Your task to perform on an android device: Go to Reddit.com Image 0: 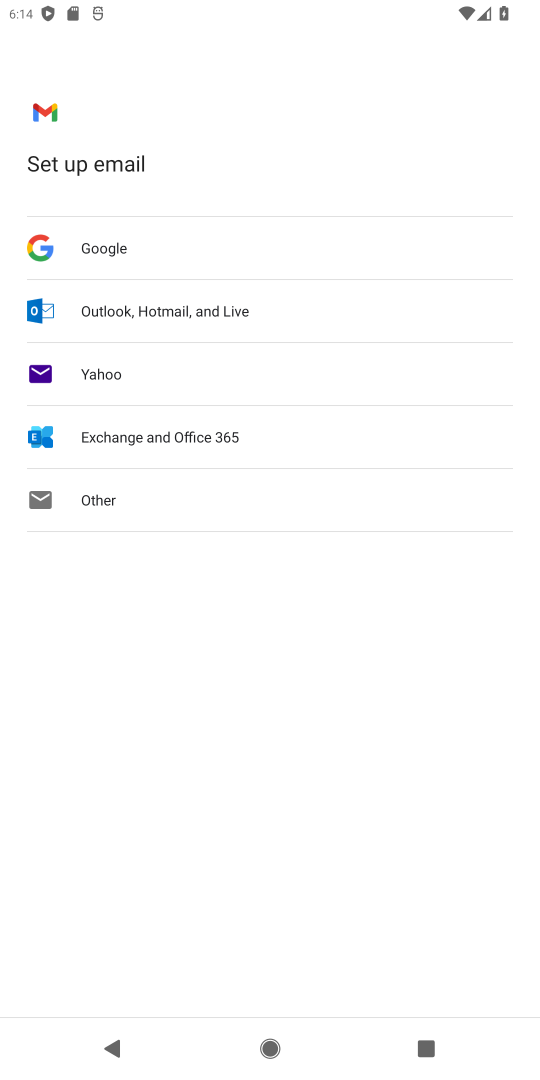
Step 0: press home button
Your task to perform on an android device: Go to Reddit.com Image 1: 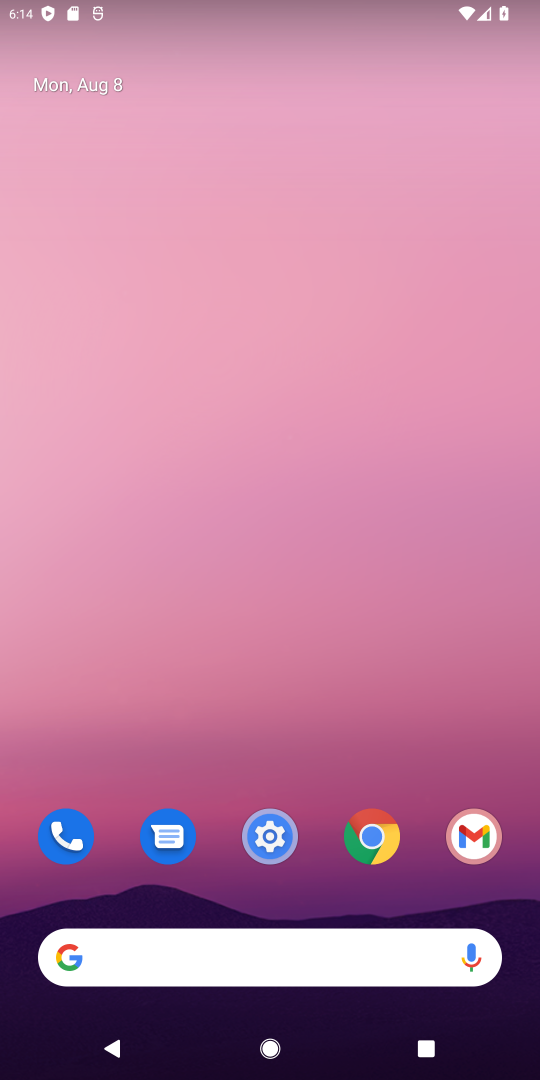
Step 1: drag from (320, 757) to (287, 35)
Your task to perform on an android device: Go to Reddit.com Image 2: 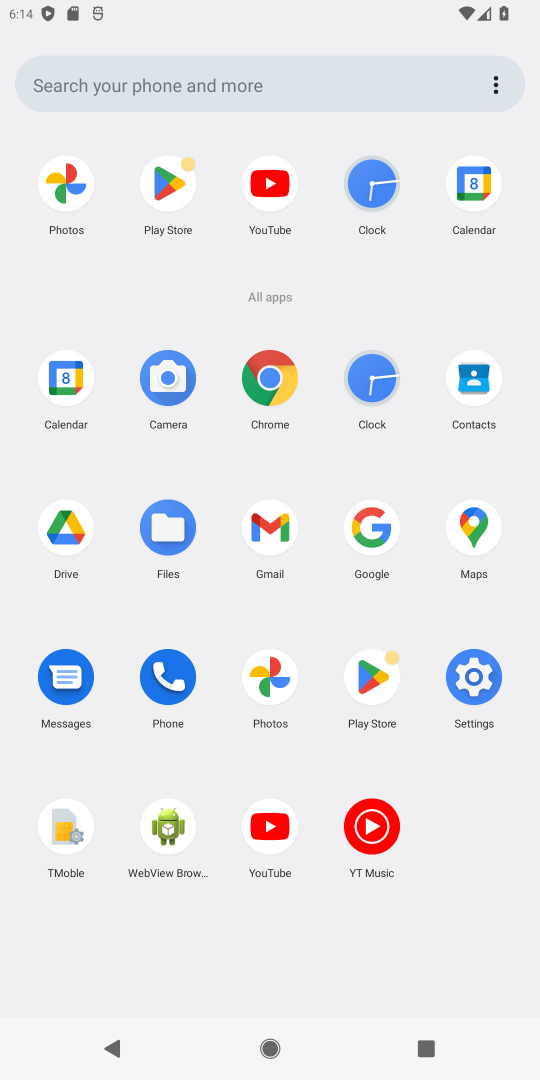
Step 2: click (285, 380)
Your task to perform on an android device: Go to Reddit.com Image 3: 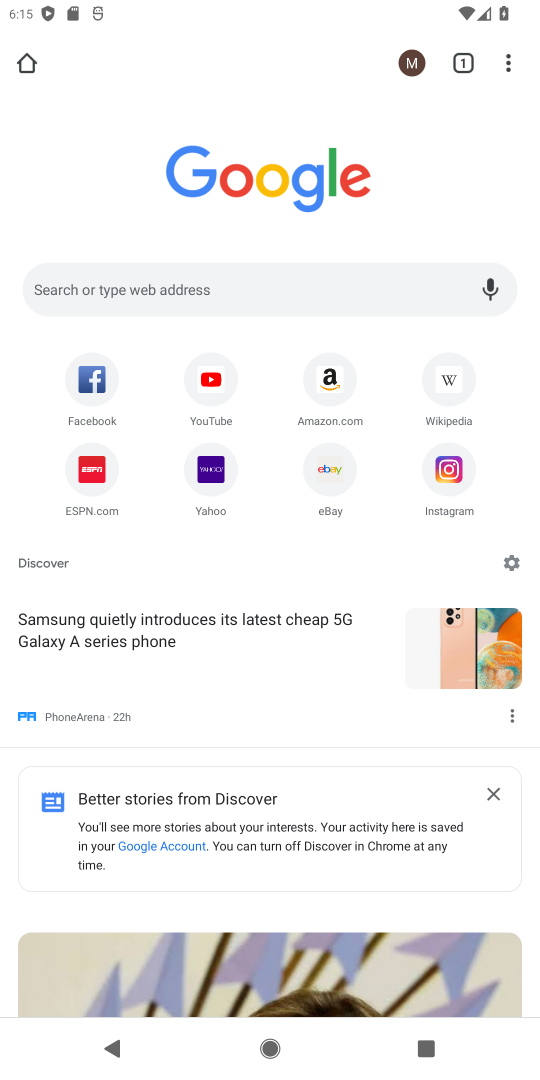
Step 3: click (173, 277)
Your task to perform on an android device: Go to Reddit.com Image 4: 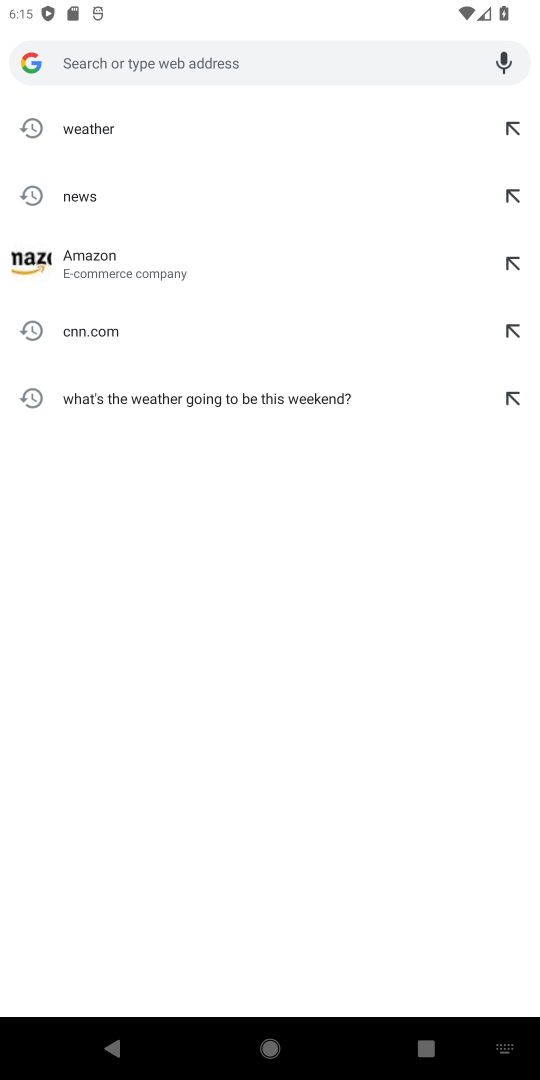
Step 4: click (189, 50)
Your task to perform on an android device: Go to Reddit.com Image 5: 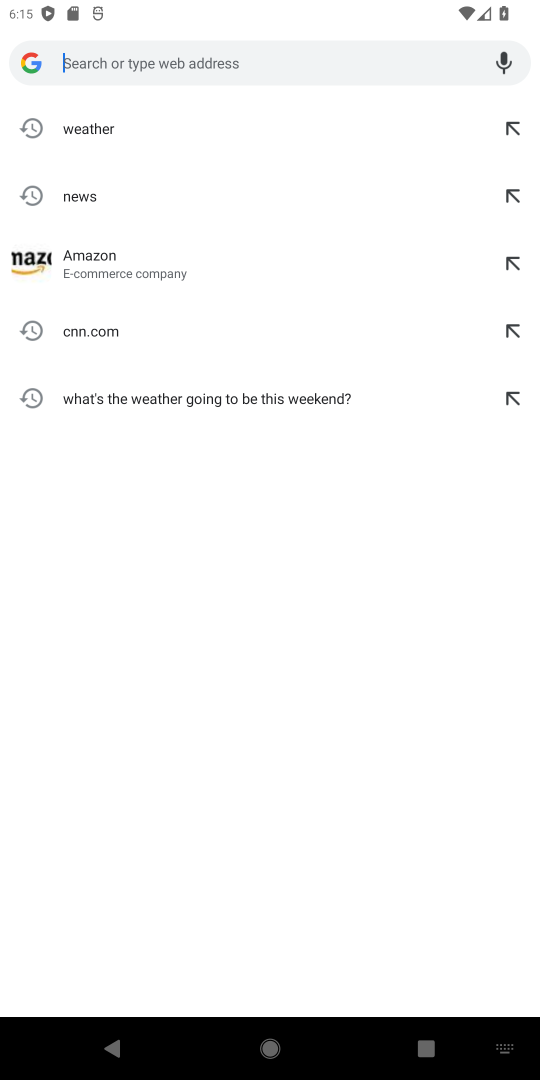
Step 5: type "Reddit.com"
Your task to perform on an android device: Go to Reddit.com Image 6: 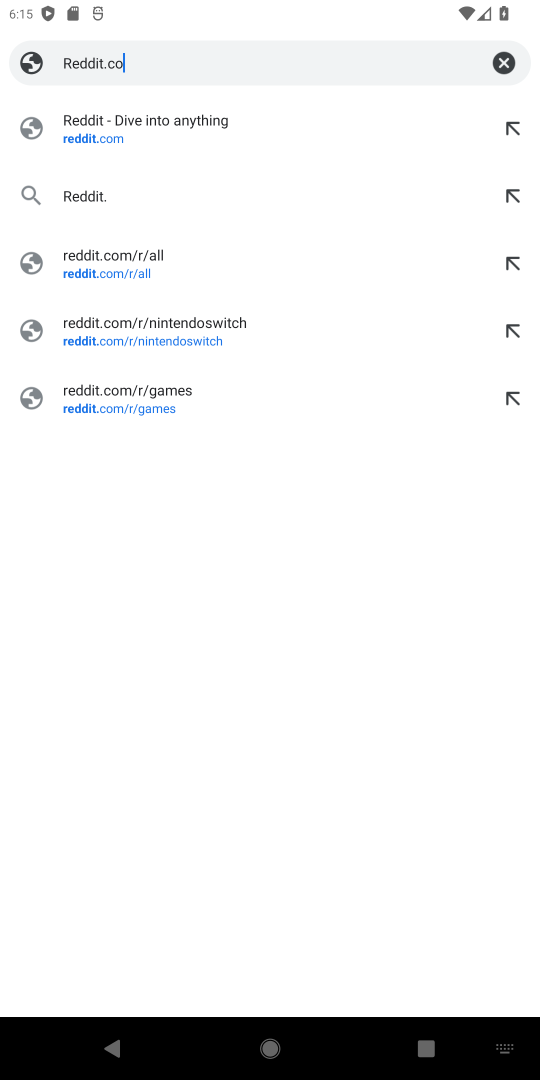
Step 6: type ""
Your task to perform on an android device: Go to Reddit.com Image 7: 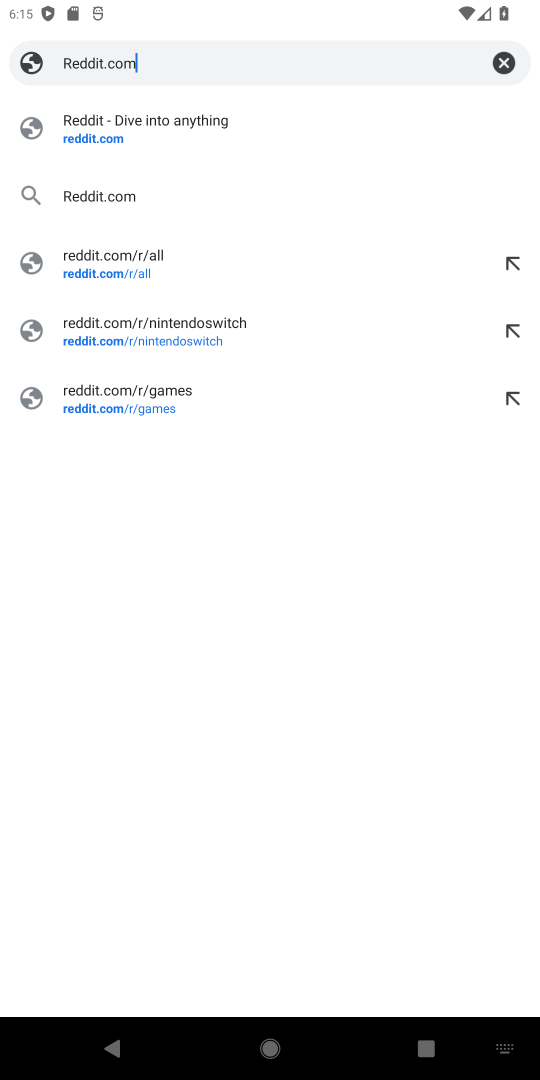
Step 7: click (246, 138)
Your task to perform on an android device: Go to Reddit.com Image 8: 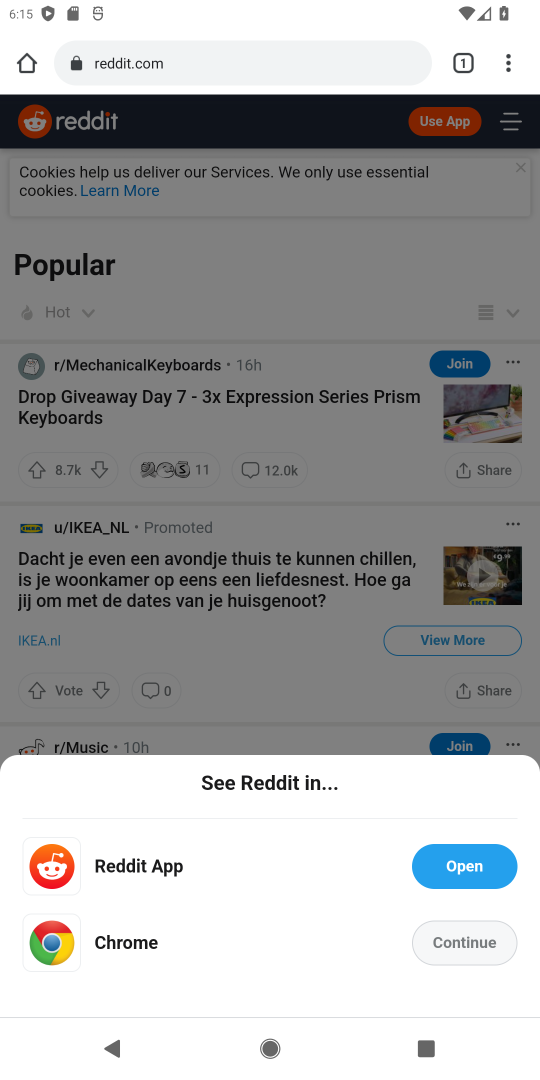
Step 8: click (484, 938)
Your task to perform on an android device: Go to Reddit.com Image 9: 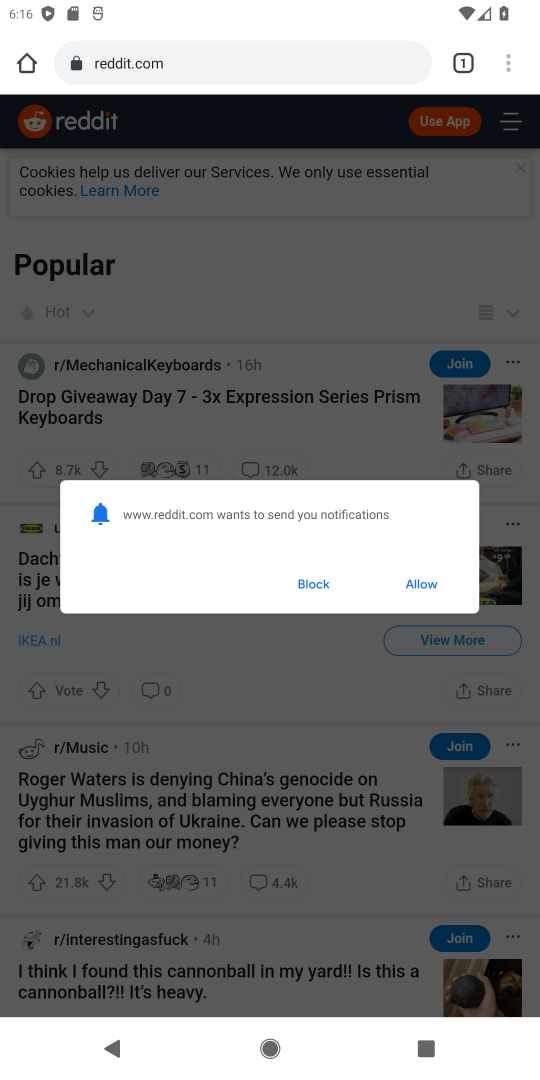
Step 9: click (433, 589)
Your task to perform on an android device: Go to Reddit.com Image 10: 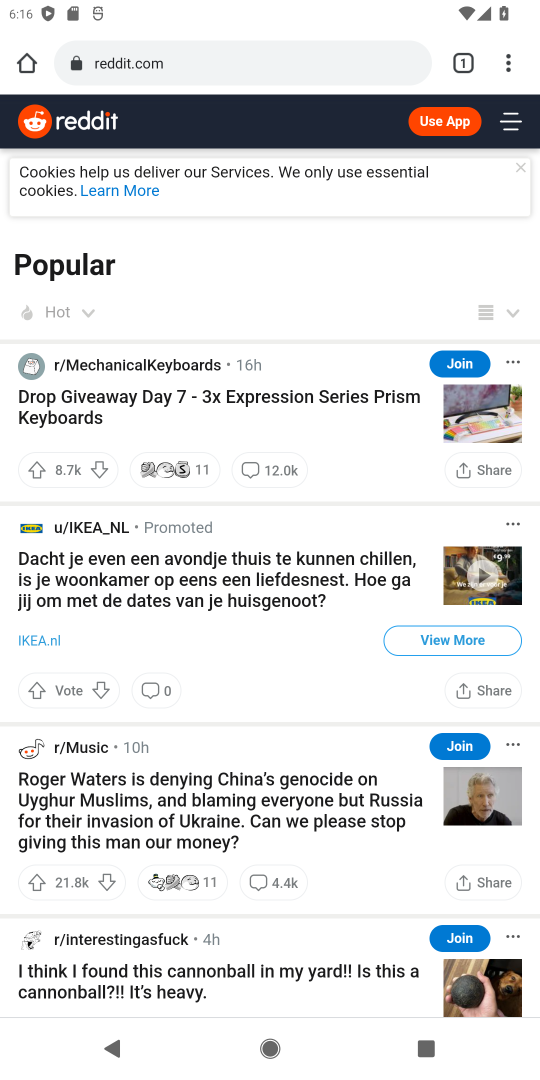
Step 10: task complete